Your task to perform on an android device: open chrome and create a bookmark for the current page Image 0: 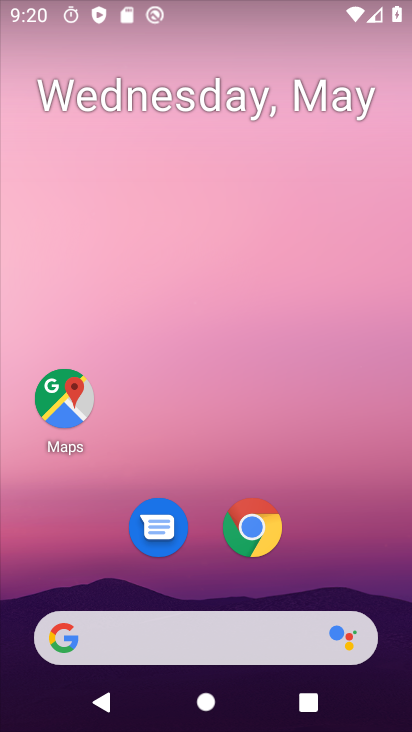
Step 0: click (249, 533)
Your task to perform on an android device: open chrome and create a bookmark for the current page Image 1: 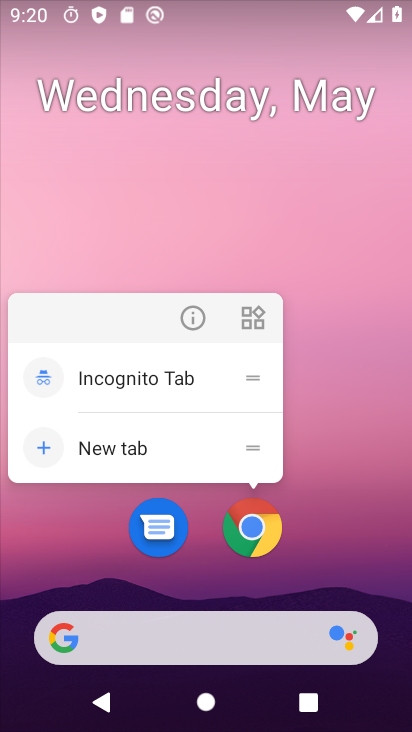
Step 1: click (241, 519)
Your task to perform on an android device: open chrome and create a bookmark for the current page Image 2: 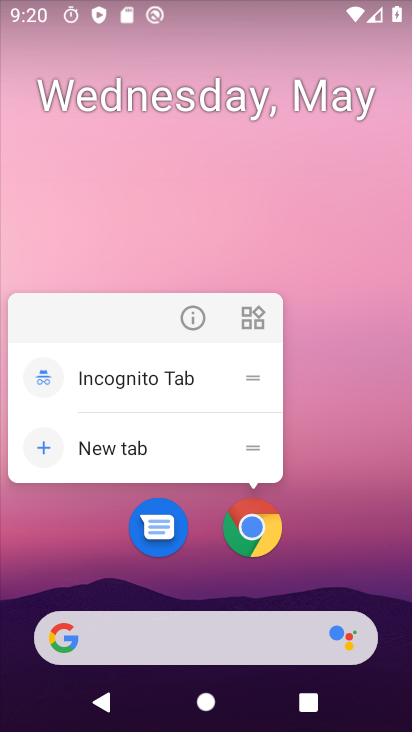
Step 2: click (255, 517)
Your task to perform on an android device: open chrome and create a bookmark for the current page Image 3: 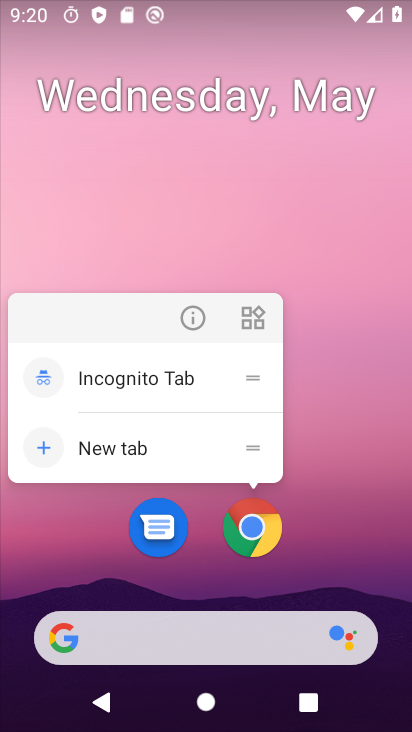
Step 3: click (255, 517)
Your task to perform on an android device: open chrome and create a bookmark for the current page Image 4: 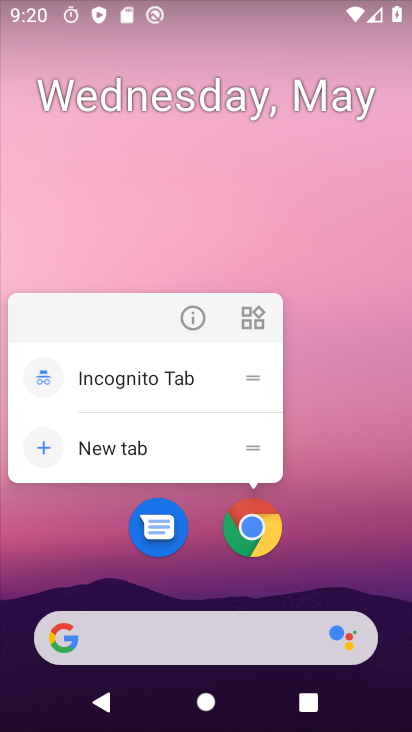
Step 4: click (246, 536)
Your task to perform on an android device: open chrome and create a bookmark for the current page Image 5: 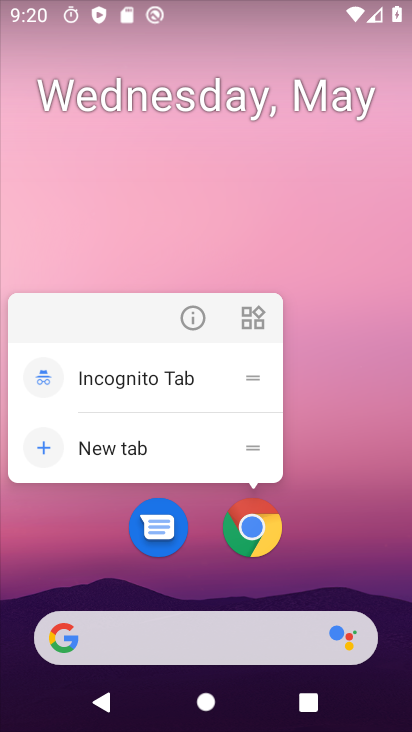
Step 5: click (246, 536)
Your task to perform on an android device: open chrome and create a bookmark for the current page Image 6: 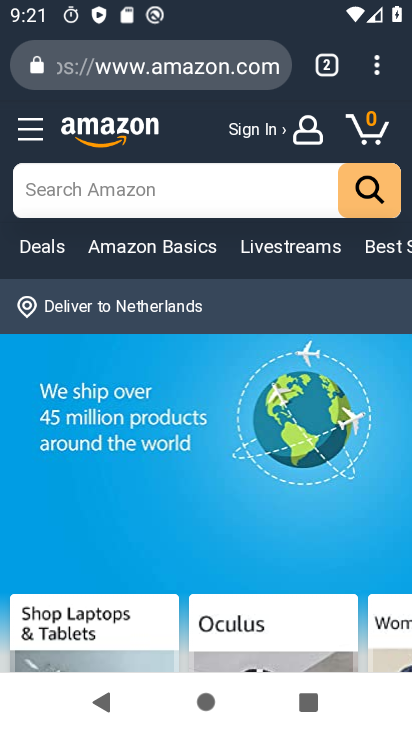
Step 6: drag from (378, 64) to (229, 585)
Your task to perform on an android device: open chrome and create a bookmark for the current page Image 7: 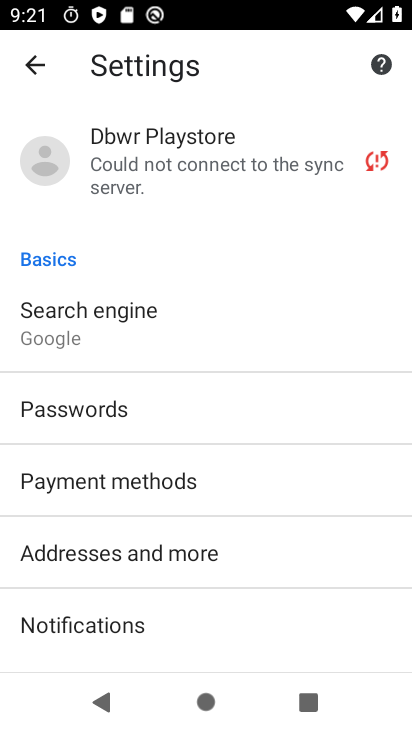
Step 7: click (25, 67)
Your task to perform on an android device: open chrome and create a bookmark for the current page Image 8: 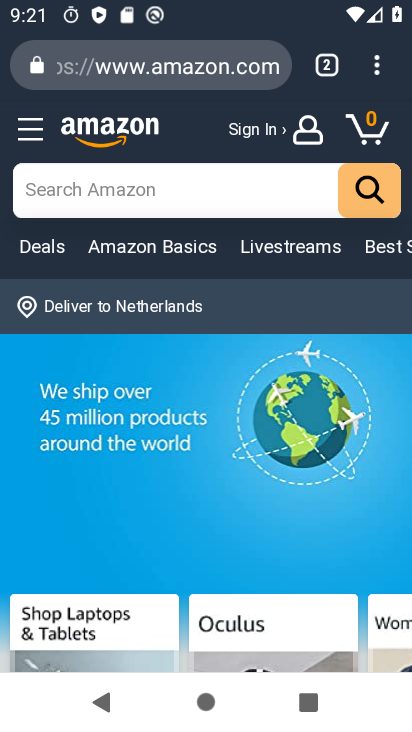
Step 8: task complete